Your task to perform on an android device: turn off sleep mode Image 0: 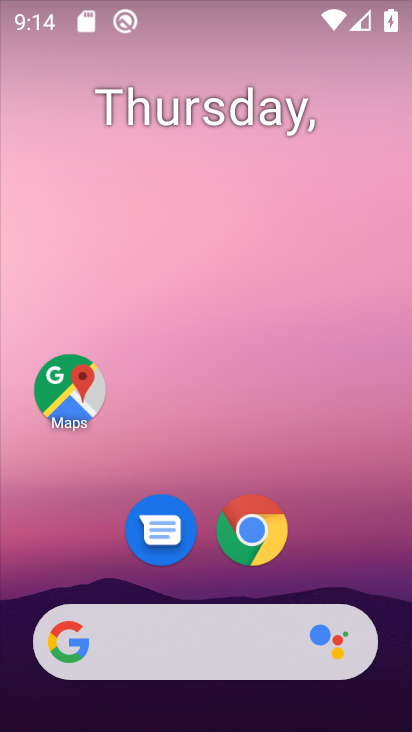
Step 0: drag from (210, 568) to (226, 66)
Your task to perform on an android device: turn off sleep mode Image 1: 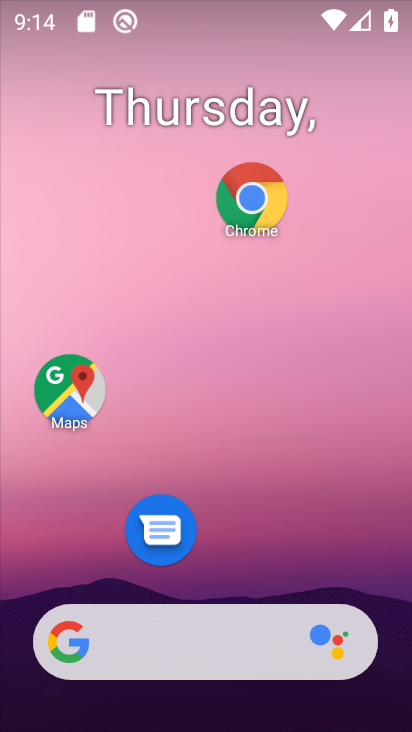
Step 1: task complete